Your task to perform on an android device: move a message to another label in the gmail app Image 0: 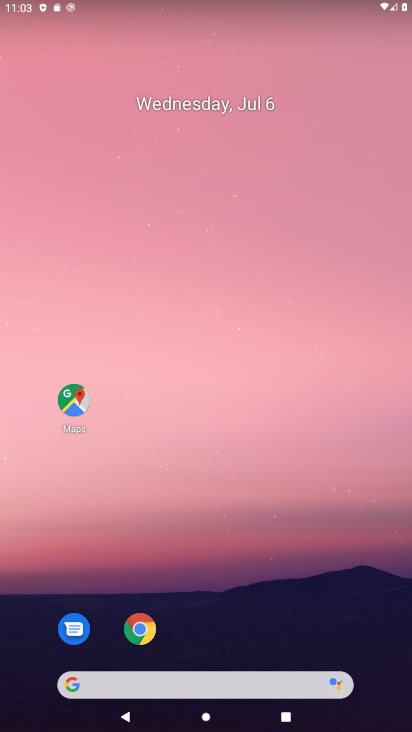
Step 0: drag from (353, 629) to (357, 101)
Your task to perform on an android device: move a message to another label in the gmail app Image 1: 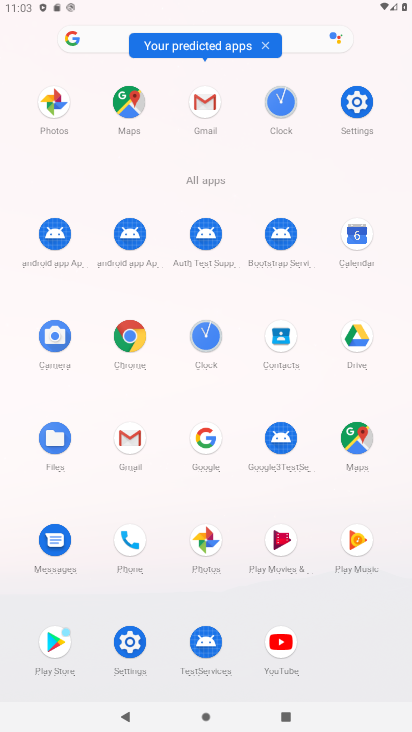
Step 1: click (137, 436)
Your task to perform on an android device: move a message to another label in the gmail app Image 2: 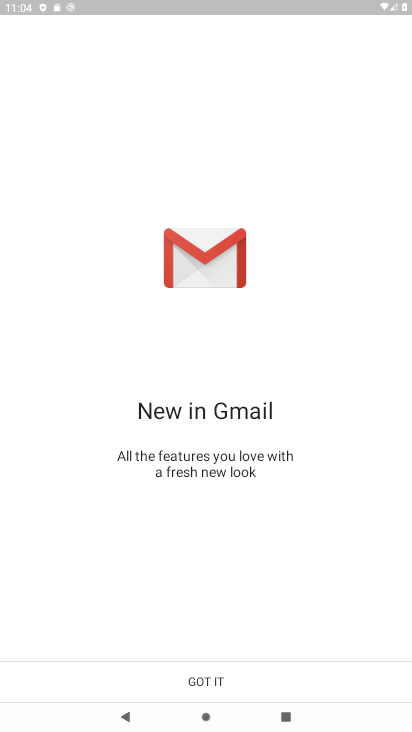
Step 2: click (254, 685)
Your task to perform on an android device: move a message to another label in the gmail app Image 3: 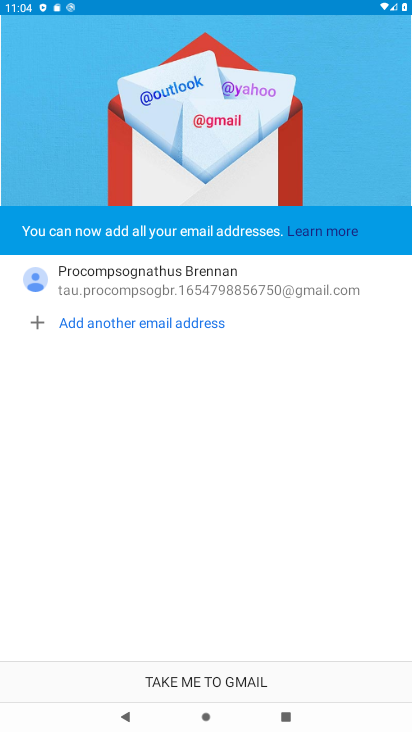
Step 3: click (294, 682)
Your task to perform on an android device: move a message to another label in the gmail app Image 4: 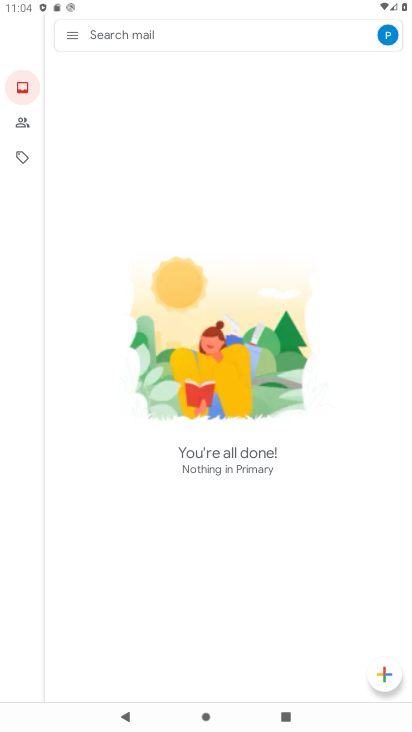
Step 4: task complete